Your task to perform on an android device: Open the Play Movies app and select the watchlist tab. Image 0: 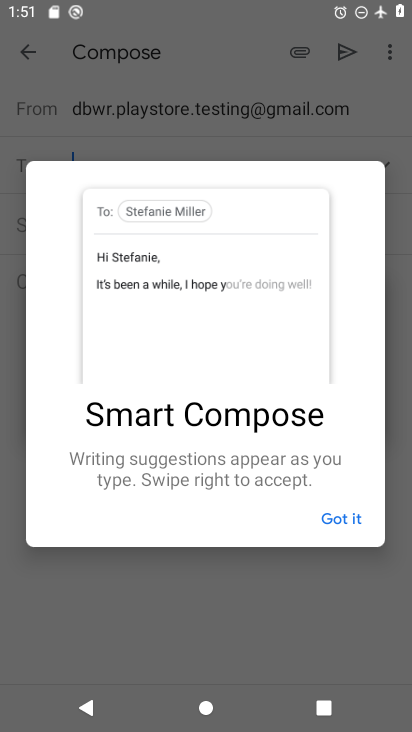
Step 0: press home button
Your task to perform on an android device: Open the Play Movies app and select the watchlist tab. Image 1: 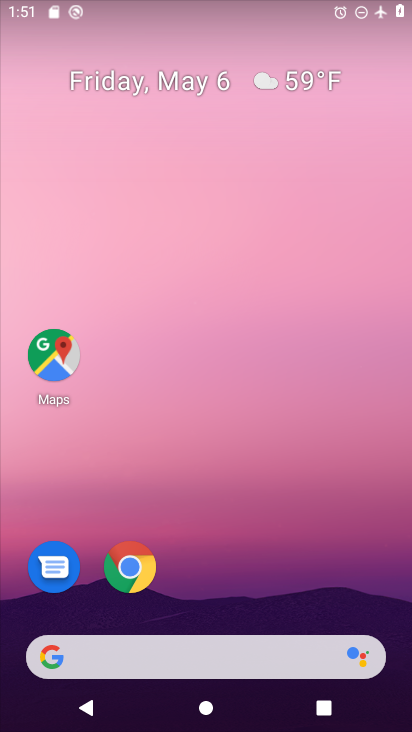
Step 1: drag from (279, 570) to (225, 135)
Your task to perform on an android device: Open the Play Movies app and select the watchlist tab. Image 2: 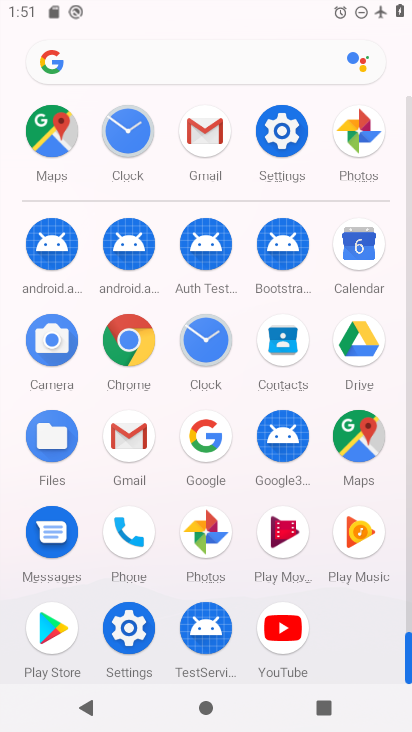
Step 2: click (283, 541)
Your task to perform on an android device: Open the Play Movies app and select the watchlist tab. Image 3: 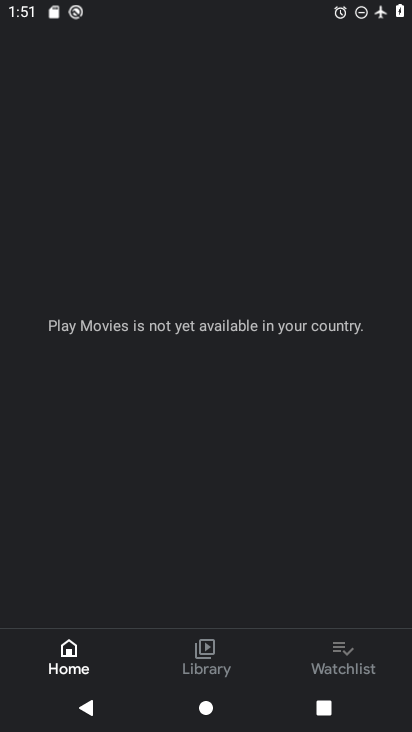
Step 3: click (339, 655)
Your task to perform on an android device: Open the Play Movies app and select the watchlist tab. Image 4: 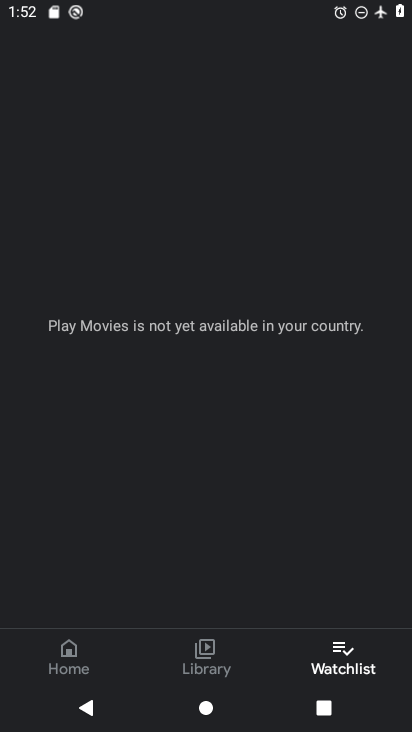
Step 4: task complete